Your task to perform on an android device: toggle show notifications on the lock screen Image 0: 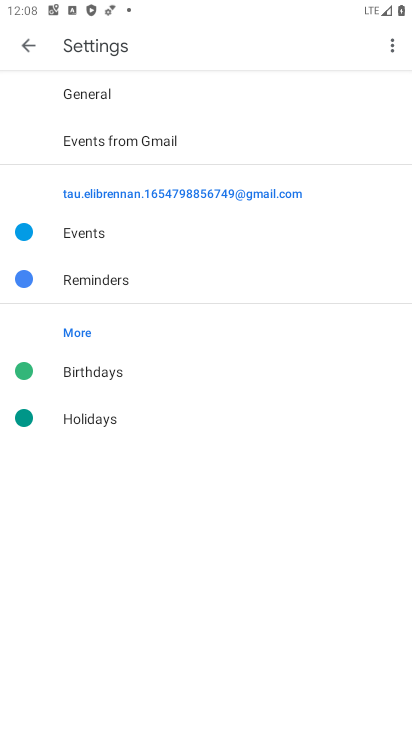
Step 0: press home button
Your task to perform on an android device: toggle show notifications on the lock screen Image 1: 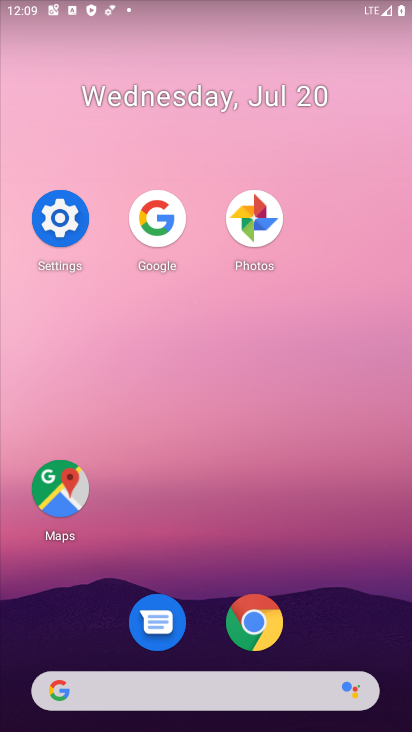
Step 1: click (69, 201)
Your task to perform on an android device: toggle show notifications on the lock screen Image 2: 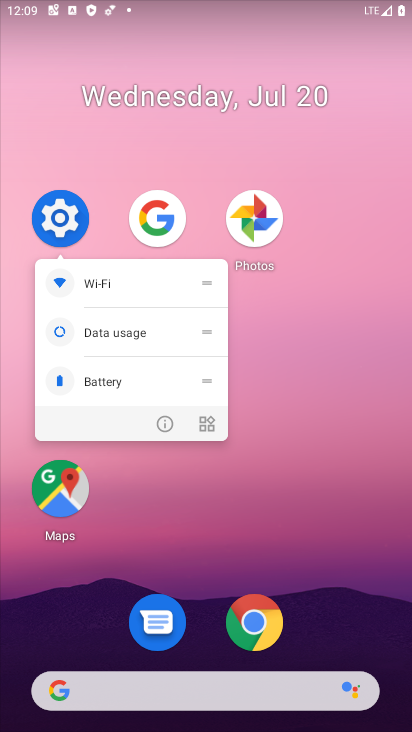
Step 2: click (70, 201)
Your task to perform on an android device: toggle show notifications on the lock screen Image 3: 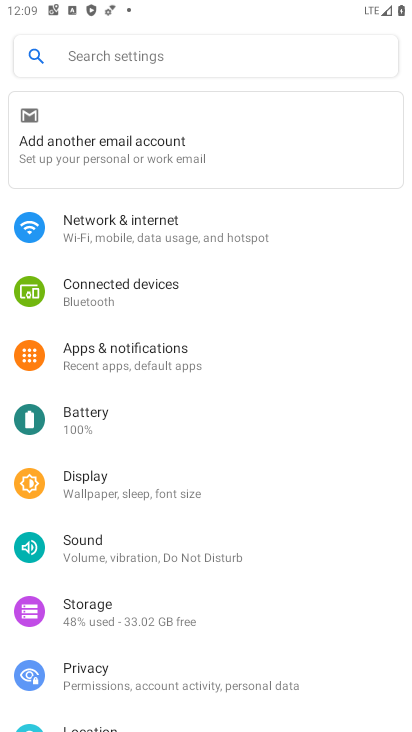
Step 3: click (206, 342)
Your task to perform on an android device: toggle show notifications on the lock screen Image 4: 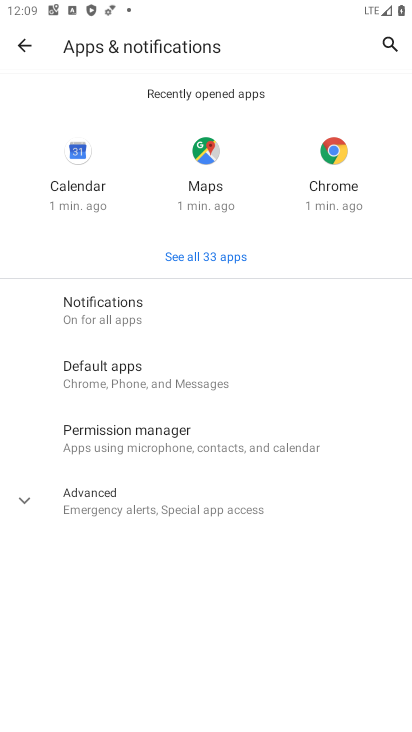
Step 4: click (205, 314)
Your task to perform on an android device: toggle show notifications on the lock screen Image 5: 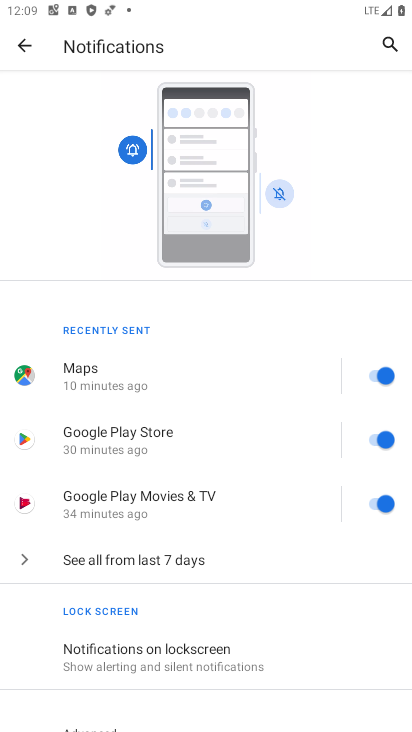
Step 5: click (198, 658)
Your task to perform on an android device: toggle show notifications on the lock screen Image 6: 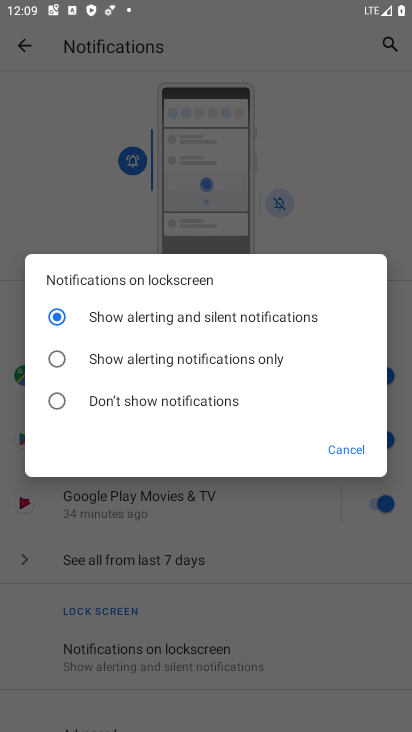
Step 6: click (276, 358)
Your task to perform on an android device: toggle show notifications on the lock screen Image 7: 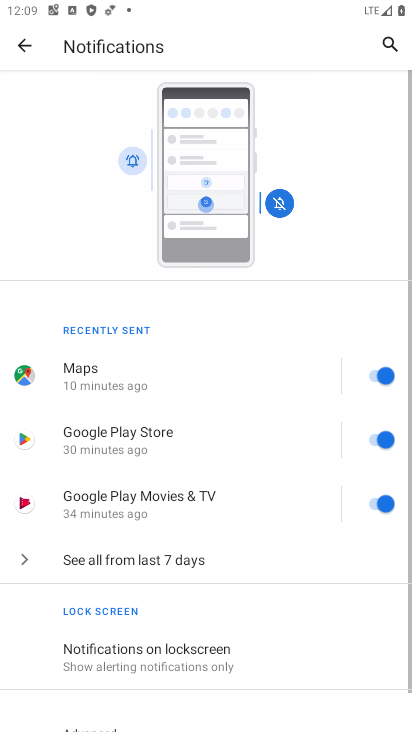
Step 7: task complete